Your task to perform on an android device: turn notification dots on Image 0: 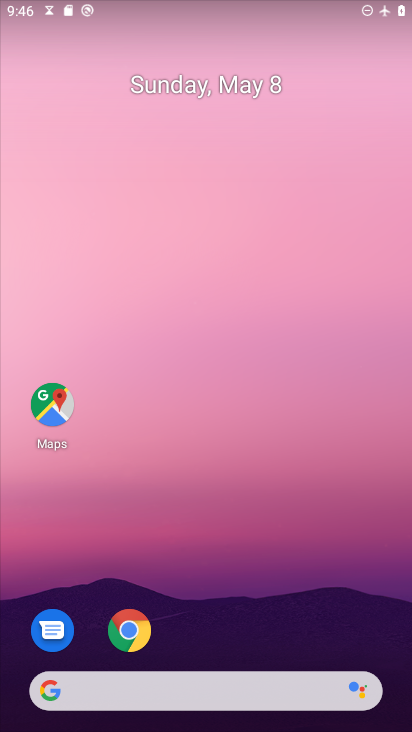
Step 0: press home button
Your task to perform on an android device: turn notification dots on Image 1: 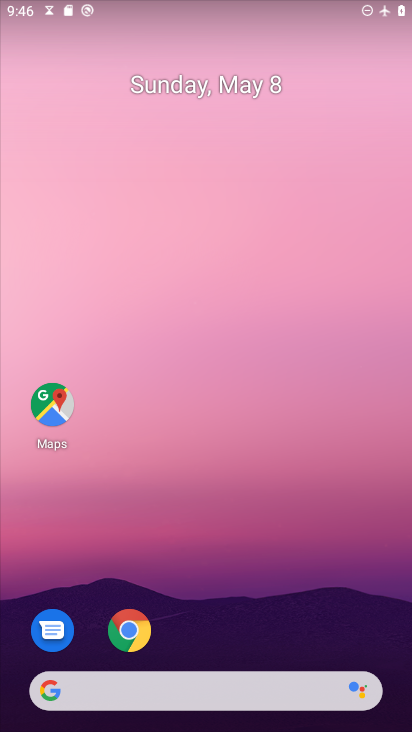
Step 1: drag from (201, 695) to (333, 166)
Your task to perform on an android device: turn notification dots on Image 2: 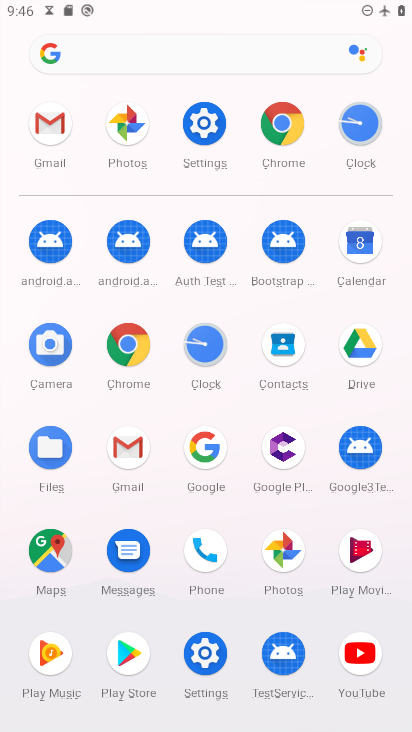
Step 2: click (205, 120)
Your task to perform on an android device: turn notification dots on Image 3: 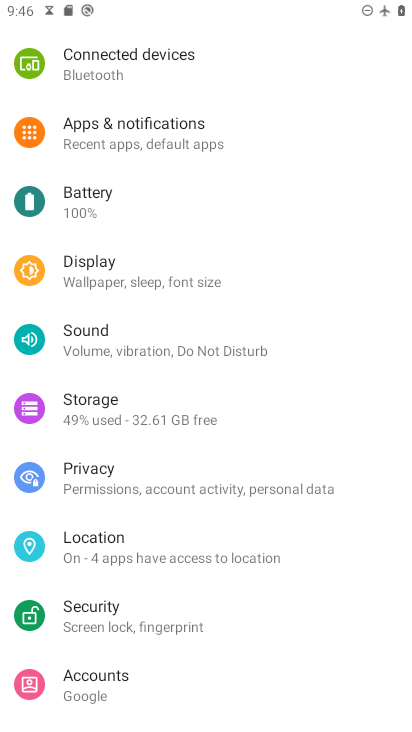
Step 3: click (152, 134)
Your task to perform on an android device: turn notification dots on Image 4: 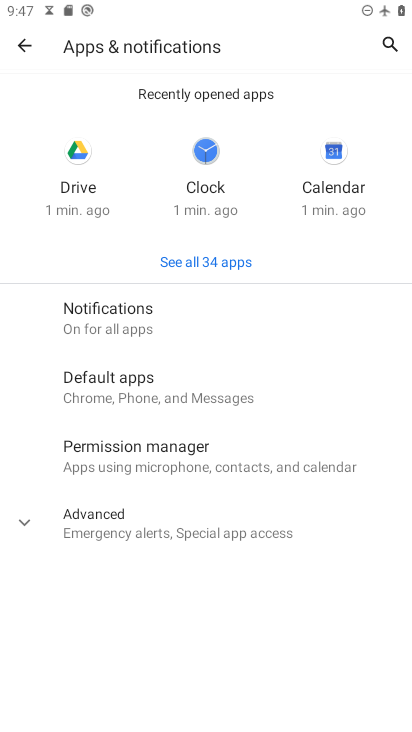
Step 4: click (115, 318)
Your task to perform on an android device: turn notification dots on Image 5: 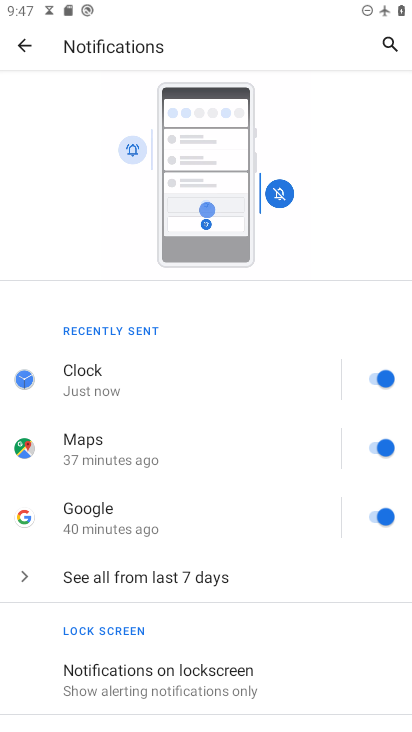
Step 5: drag from (219, 595) to (298, 163)
Your task to perform on an android device: turn notification dots on Image 6: 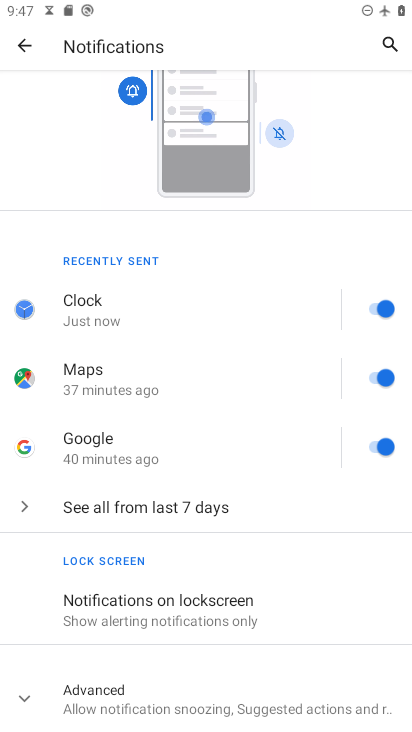
Step 6: click (133, 704)
Your task to perform on an android device: turn notification dots on Image 7: 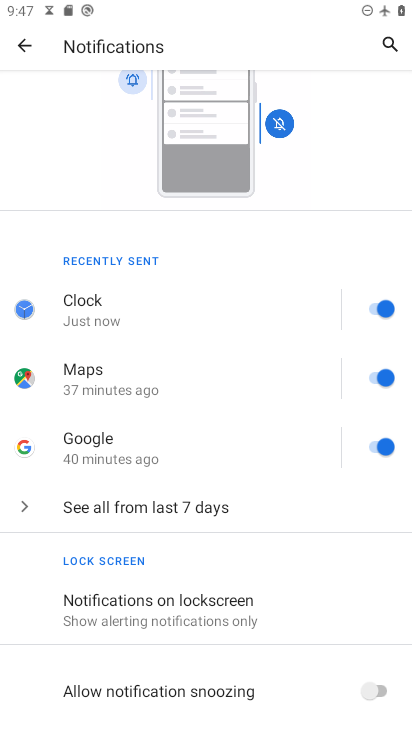
Step 7: task complete